Your task to perform on an android device: open app "Nova Launcher" Image 0: 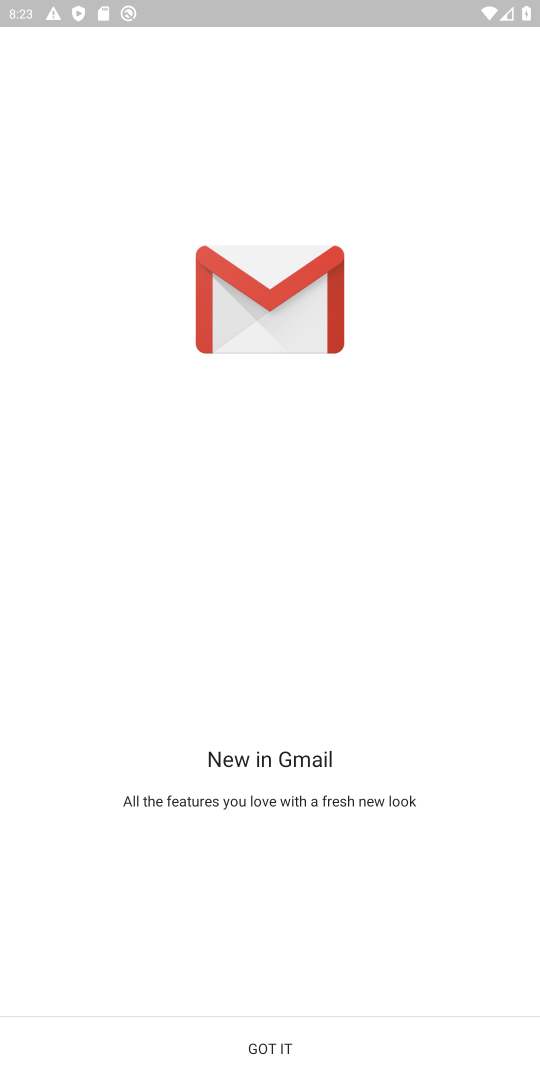
Step 0: press home button
Your task to perform on an android device: open app "Nova Launcher" Image 1: 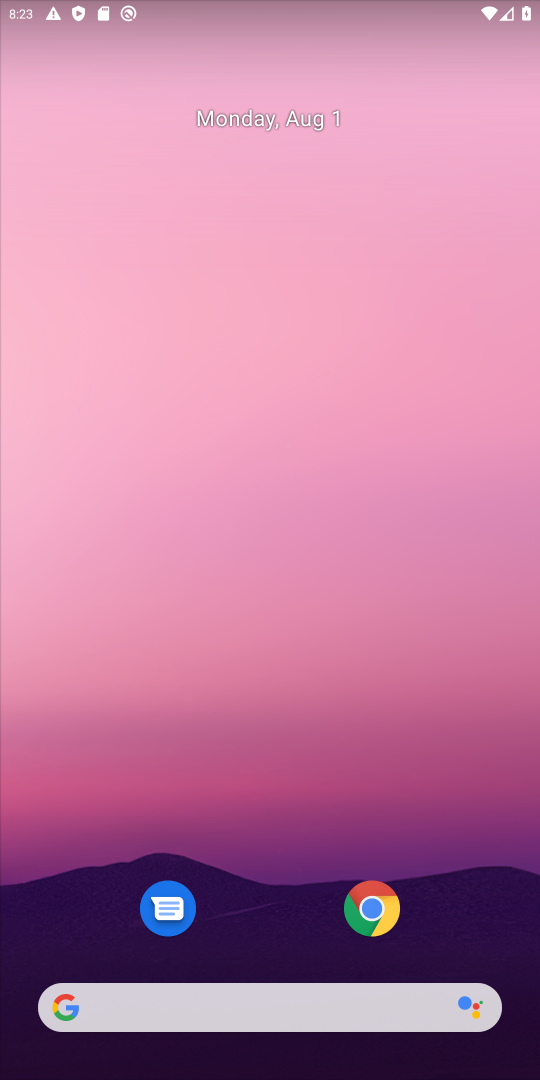
Step 1: drag from (263, 705) to (237, 186)
Your task to perform on an android device: open app "Nova Launcher" Image 2: 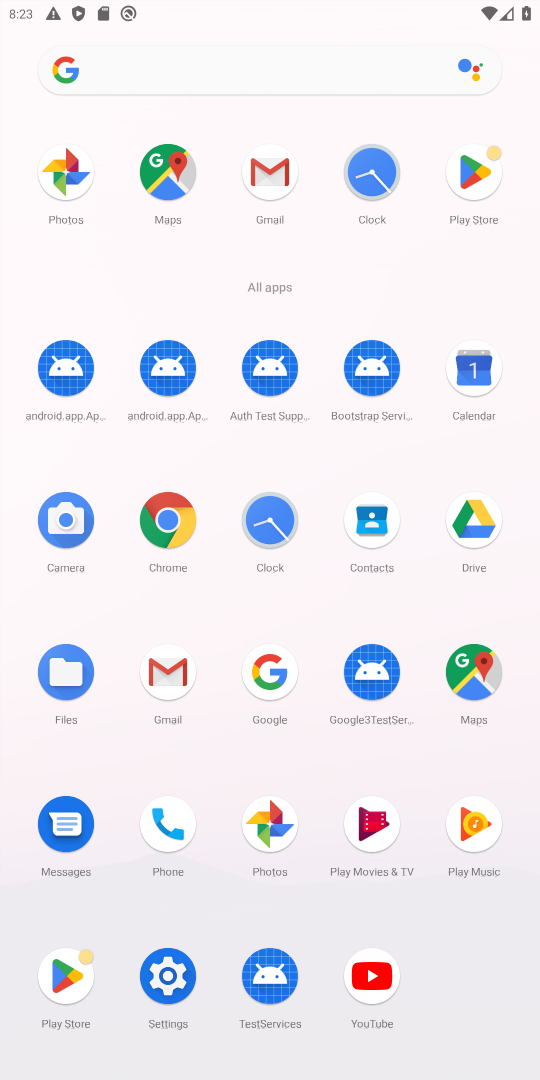
Step 2: click (470, 164)
Your task to perform on an android device: open app "Nova Launcher" Image 3: 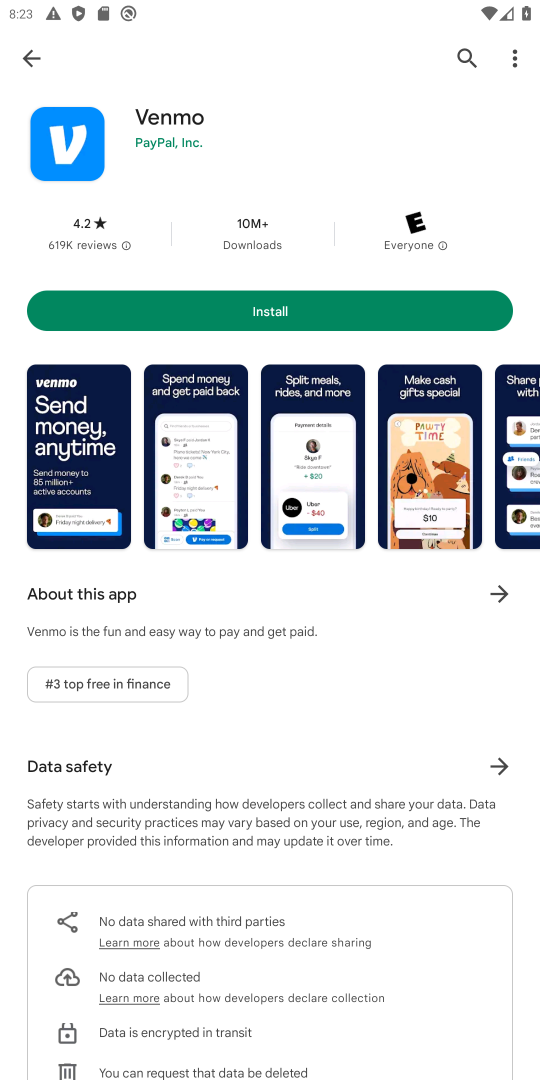
Step 3: click (469, 48)
Your task to perform on an android device: open app "Nova Launcher" Image 4: 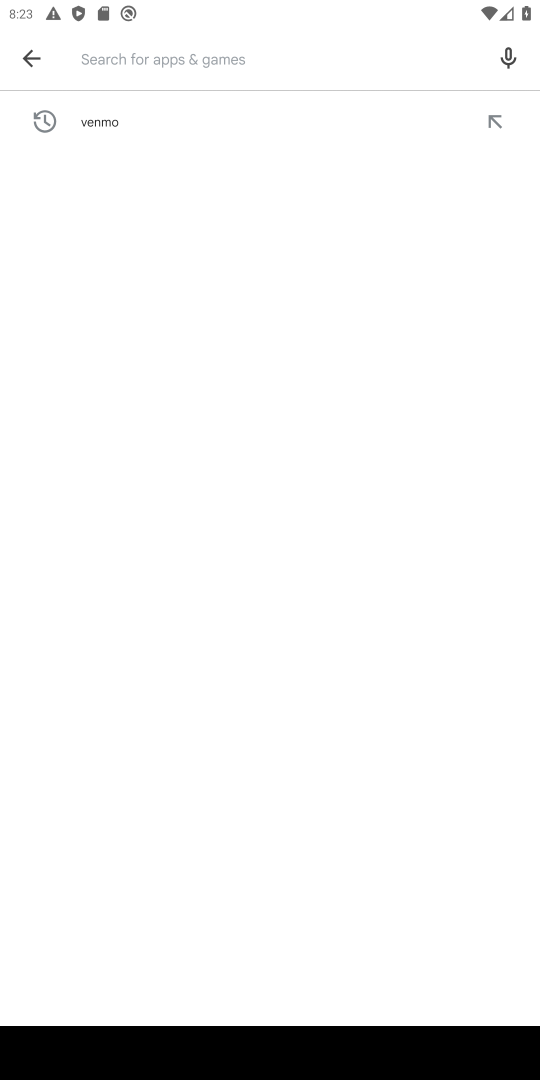
Step 4: type "nova launcher"
Your task to perform on an android device: open app "Nova Launcher" Image 5: 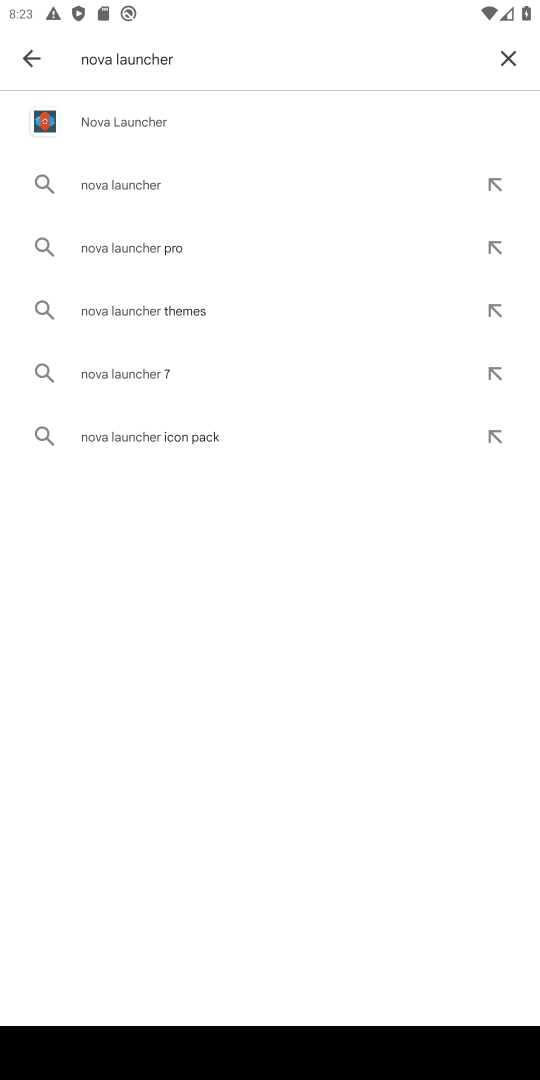
Step 5: click (256, 127)
Your task to perform on an android device: open app "Nova Launcher" Image 6: 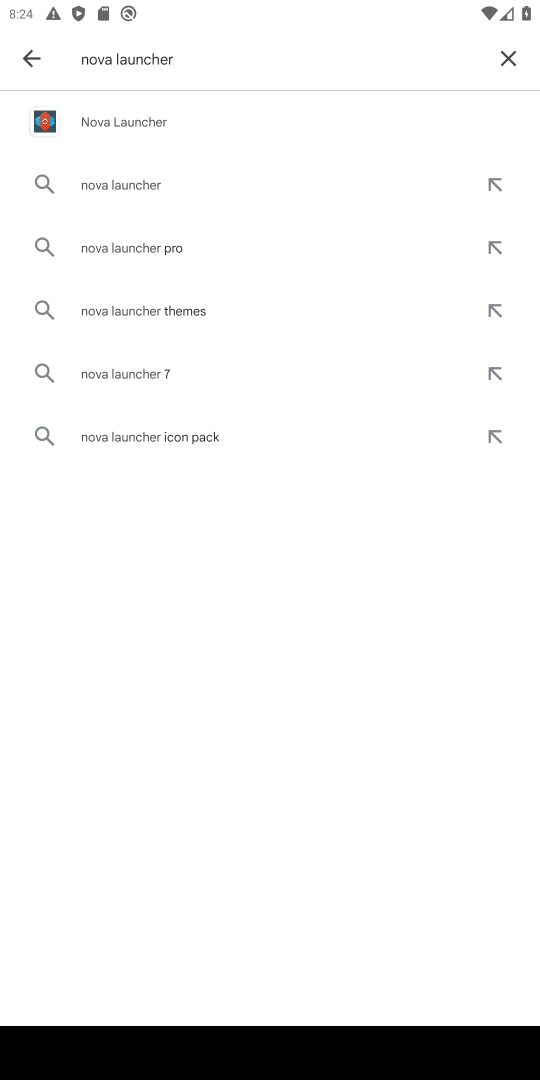
Step 6: click (256, 127)
Your task to perform on an android device: open app "Nova Launcher" Image 7: 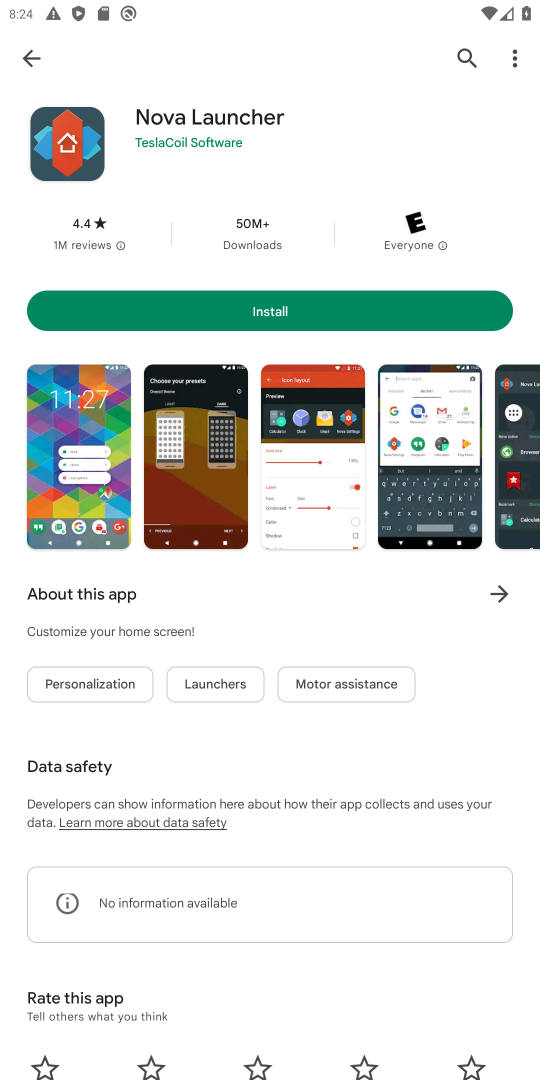
Step 7: task complete